Your task to perform on an android device: clear all cookies in the chrome app Image 0: 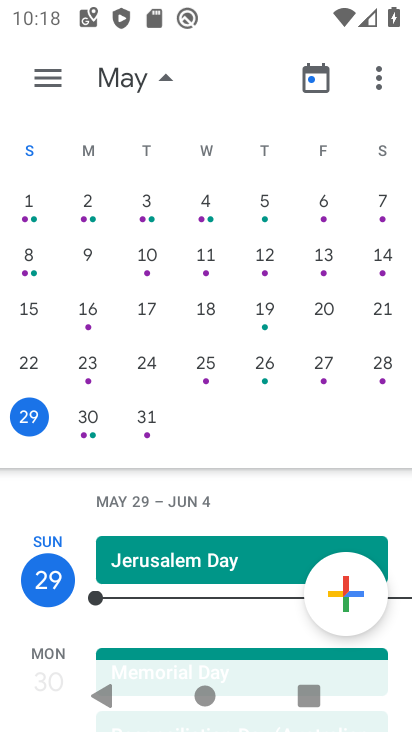
Step 0: press home button
Your task to perform on an android device: clear all cookies in the chrome app Image 1: 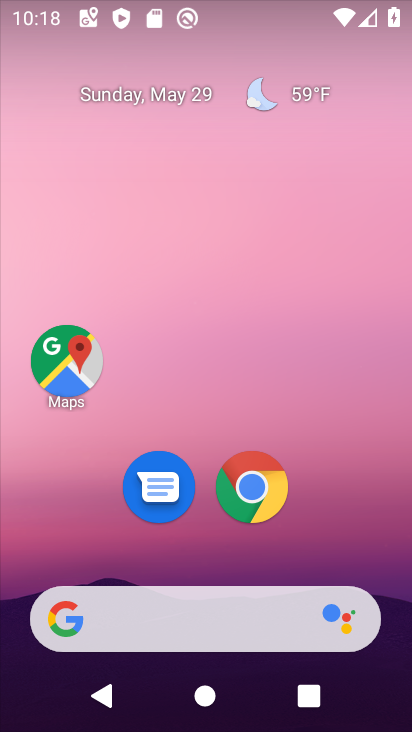
Step 1: click (242, 484)
Your task to perform on an android device: clear all cookies in the chrome app Image 2: 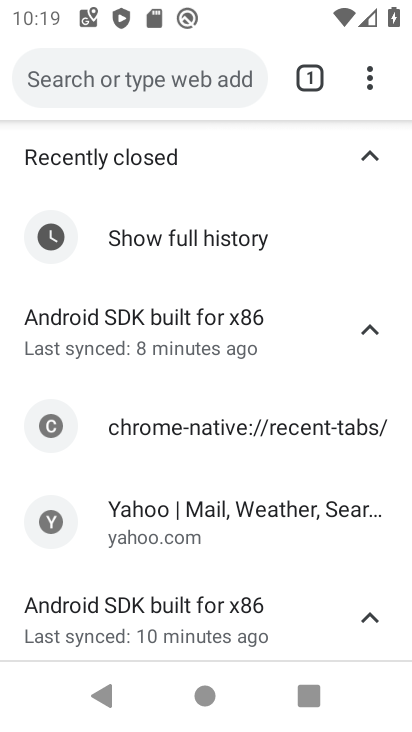
Step 2: click (367, 78)
Your task to perform on an android device: clear all cookies in the chrome app Image 3: 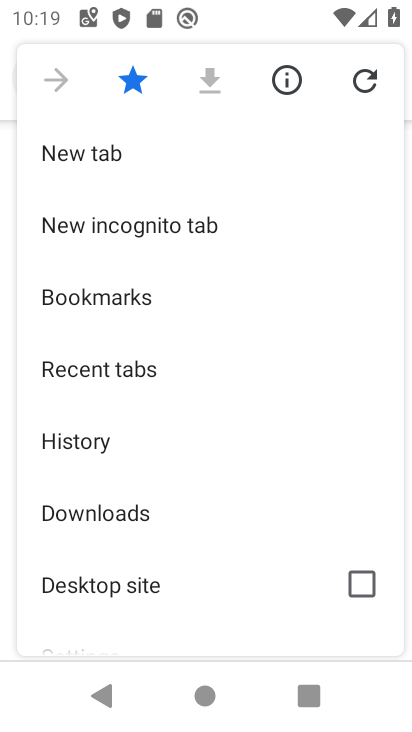
Step 3: drag from (79, 291) to (166, 253)
Your task to perform on an android device: clear all cookies in the chrome app Image 4: 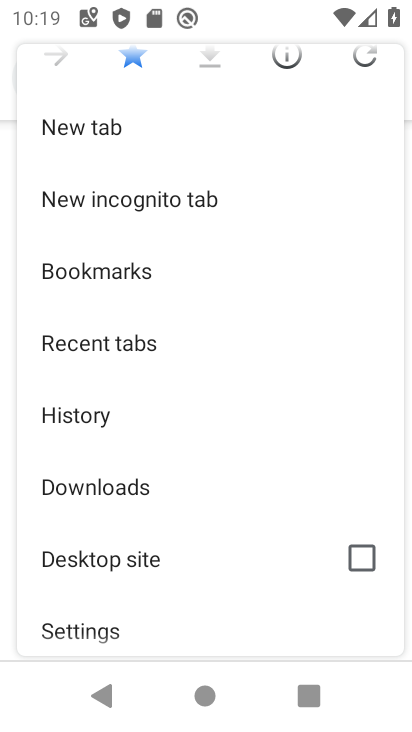
Step 4: click (99, 418)
Your task to perform on an android device: clear all cookies in the chrome app Image 5: 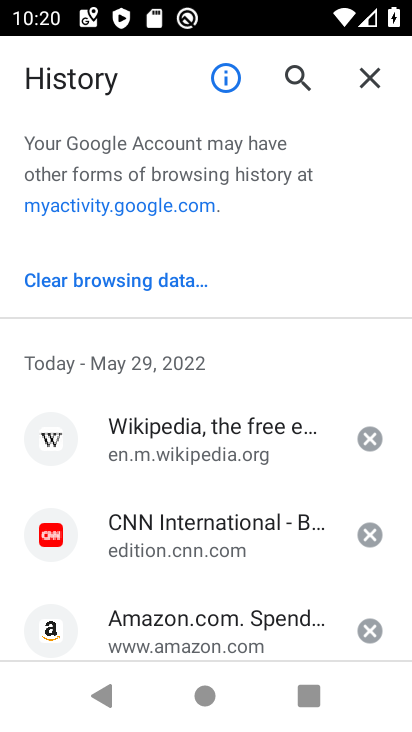
Step 5: click (145, 283)
Your task to perform on an android device: clear all cookies in the chrome app Image 6: 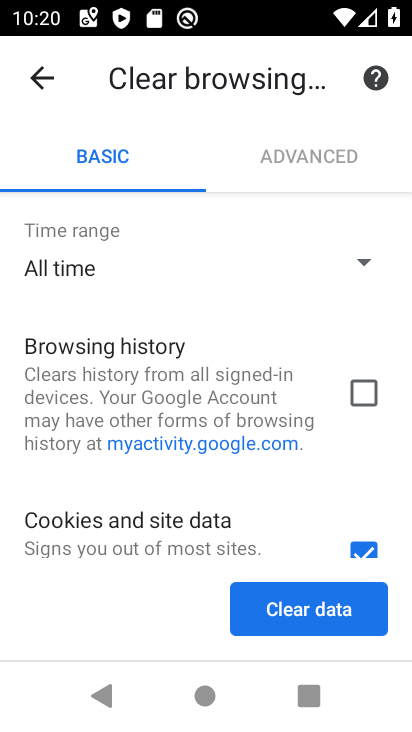
Step 6: click (259, 616)
Your task to perform on an android device: clear all cookies in the chrome app Image 7: 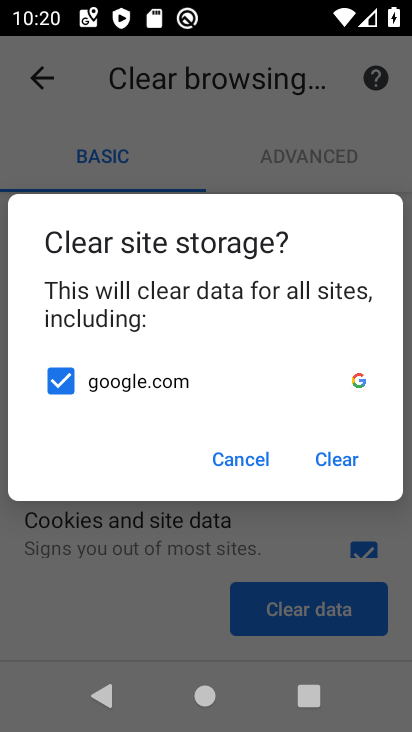
Step 7: click (353, 389)
Your task to perform on an android device: clear all cookies in the chrome app Image 8: 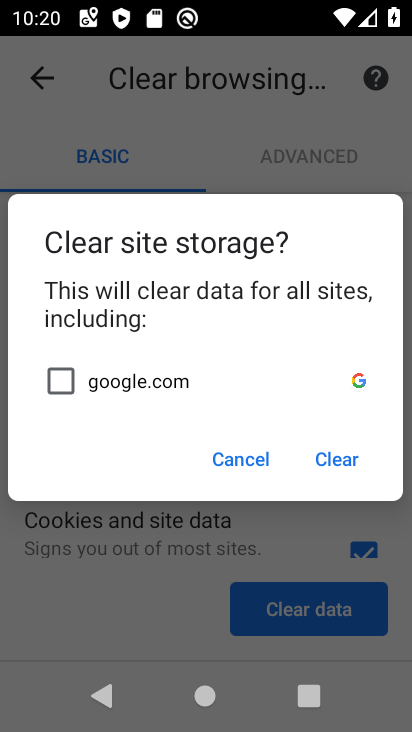
Step 8: click (247, 464)
Your task to perform on an android device: clear all cookies in the chrome app Image 9: 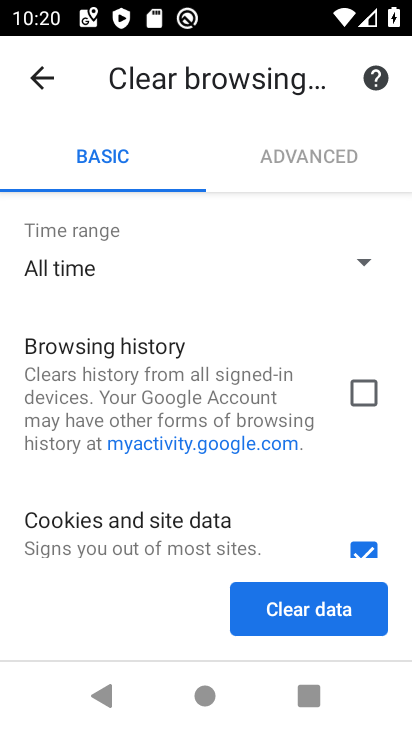
Step 9: click (369, 398)
Your task to perform on an android device: clear all cookies in the chrome app Image 10: 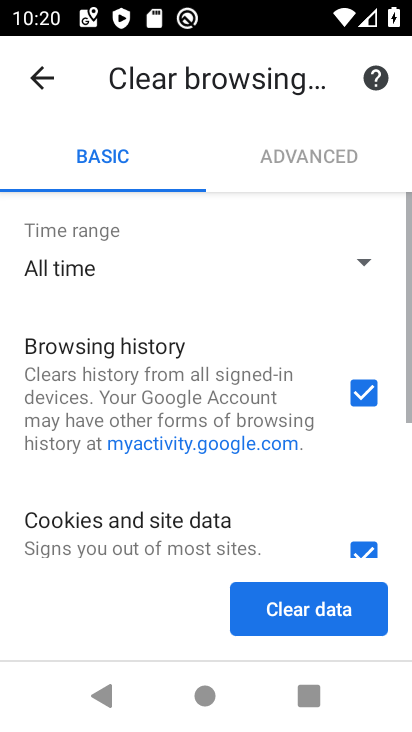
Step 10: click (345, 607)
Your task to perform on an android device: clear all cookies in the chrome app Image 11: 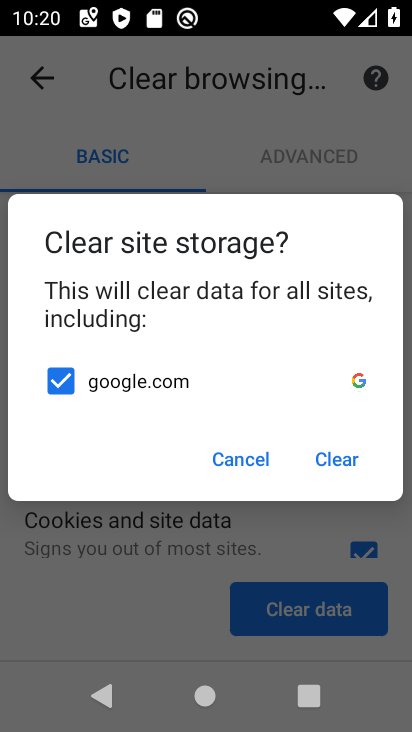
Step 11: click (325, 456)
Your task to perform on an android device: clear all cookies in the chrome app Image 12: 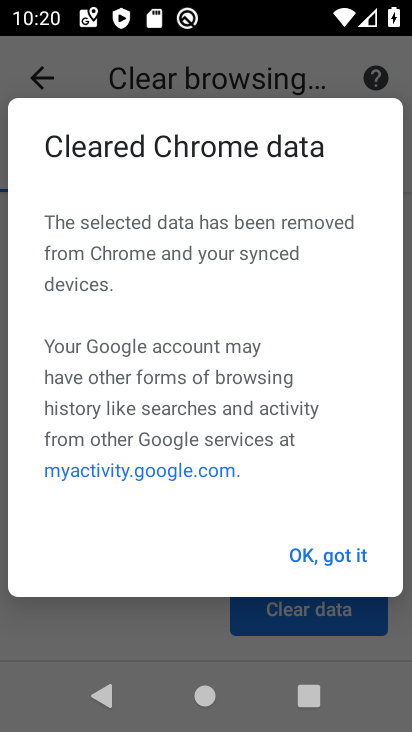
Step 12: click (325, 561)
Your task to perform on an android device: clear all cookies in the chrome app Image 13: 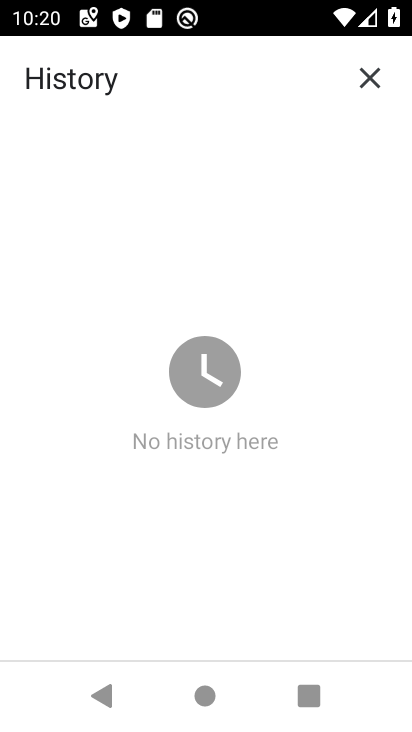
Step 13: task complete